Your task to perform on an android device: toggle pop-ups in chrome Image 0: 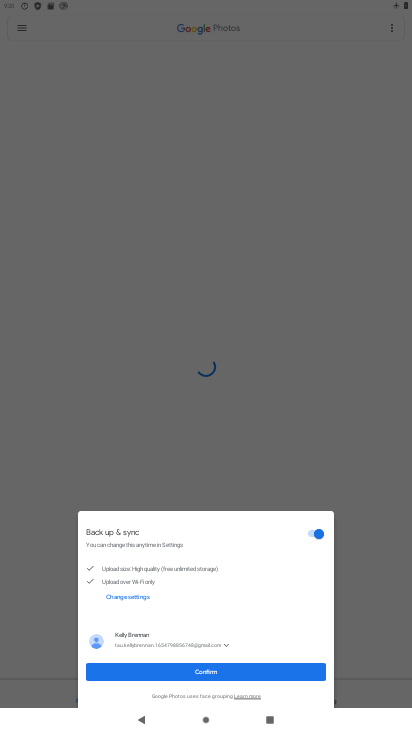
Step 0: press home button
Your task to perform on an android device: toggle pop-ups in chrome Image 1: 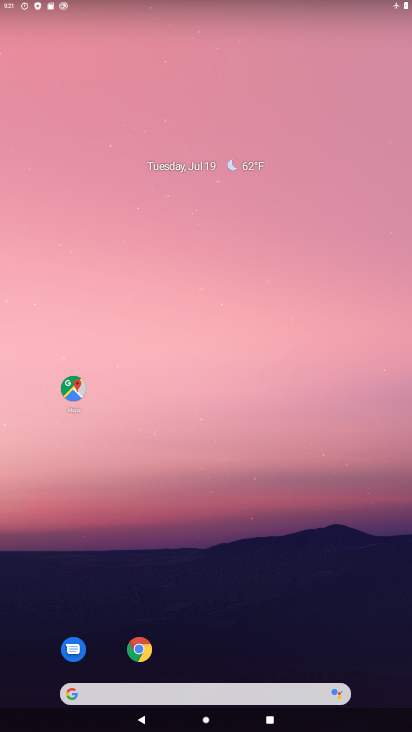
Step 1: click (142, 652)
Your task to perform on an android device: toggle pop-ups in chrome Image 2: 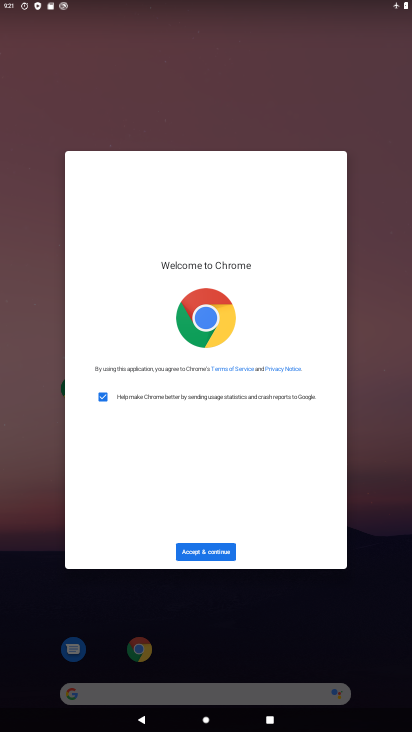
Step 2: click (198, 548)
Your task to perform on an android device: toggle pop-ups in chrome Image 3: 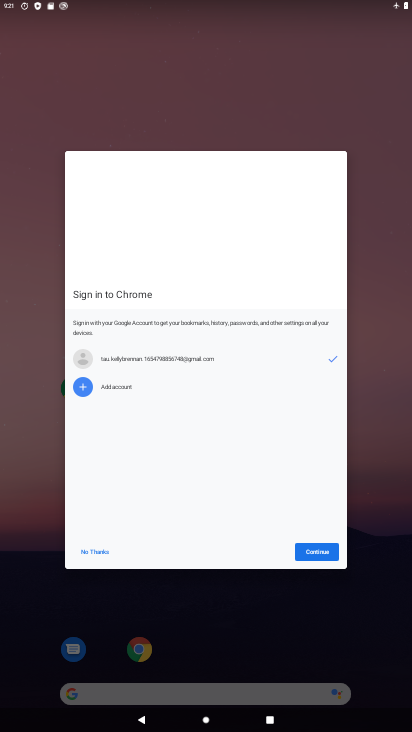
Step 3: click (328, 553)
Your task to perform on an android device: toggle pop-ups in chrome Image 4: 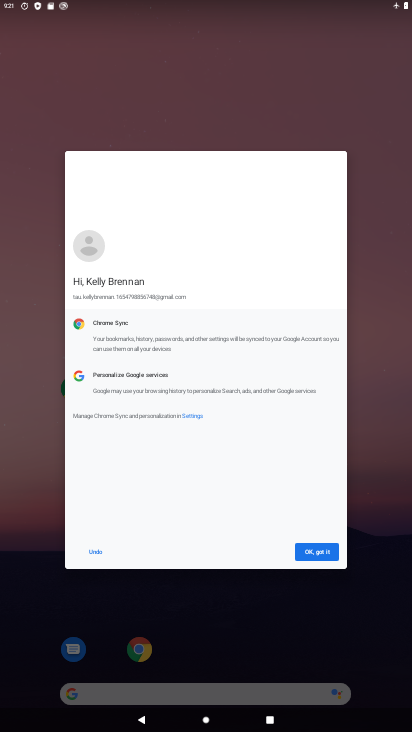
Step 4: click (328, 553)
Your task to perform on an android device: toggle pop-ups in chrome Image 5: 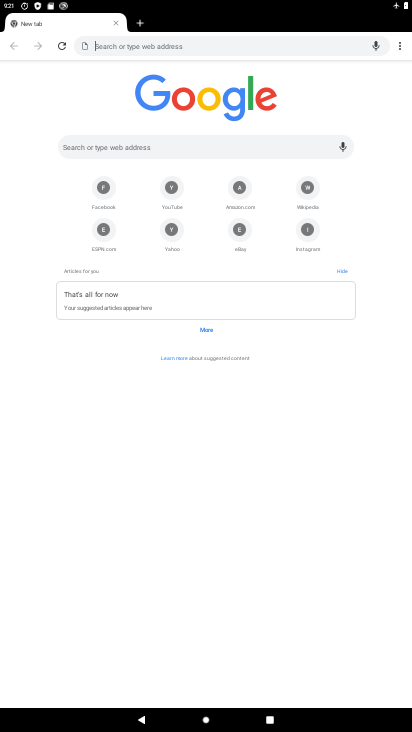
Step 5: click (397, 47)
Your task to perform on an android device: toggle pop-ups in chrome Image 6: 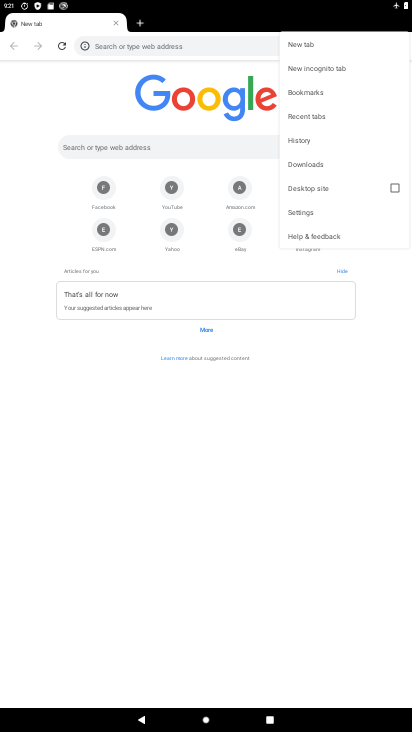
Step 6: click (305, 216)
Your task to perform on an android device: toggle pop-ups in chrome Image 7: 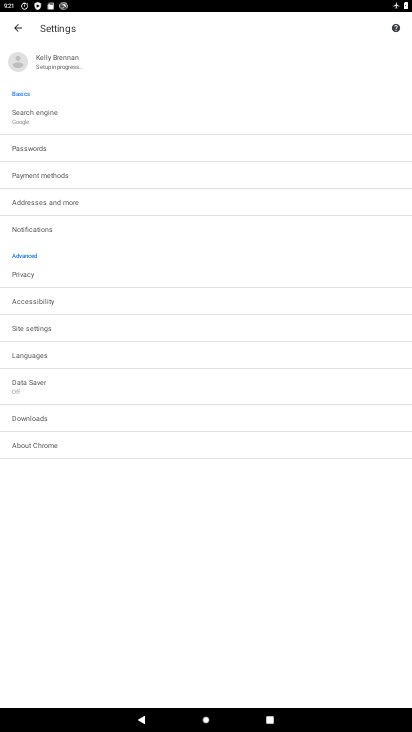
Step 7: click (71, 331)
Your task to perform on an android device: toggle pop-ups in chrome Image 8: 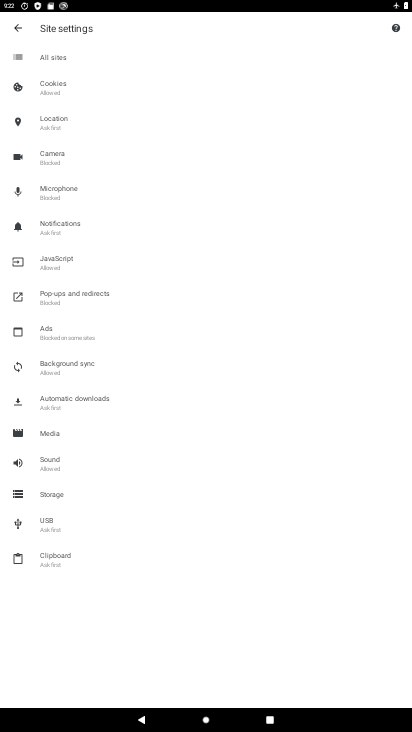
Step 8: click (80, 295)
Your task to perform on an android device: toggle pop-ups in chrome Image 9: 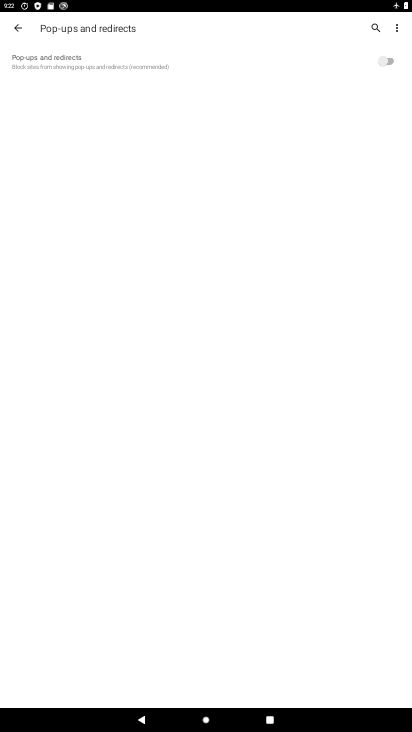
Step 9: click (387, 59)
Your task to perform on an android device: toggle pop-ups in chrome Image 10: 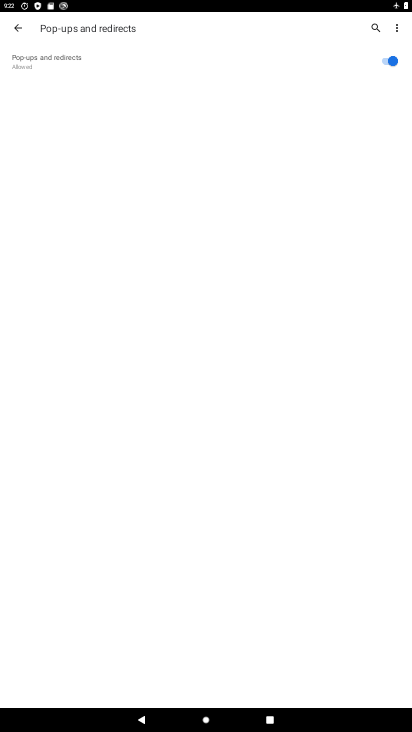
Step 10: task complete